Your task to perform on an android device: turn off priority inbox in the gmail app Image 0: 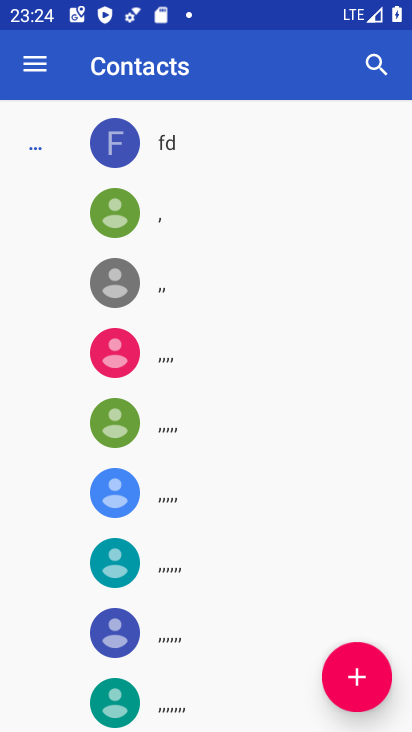
Step 0: press back button
Your task to perform on an android device: turn off priority inbox in the gmail app Image 1: 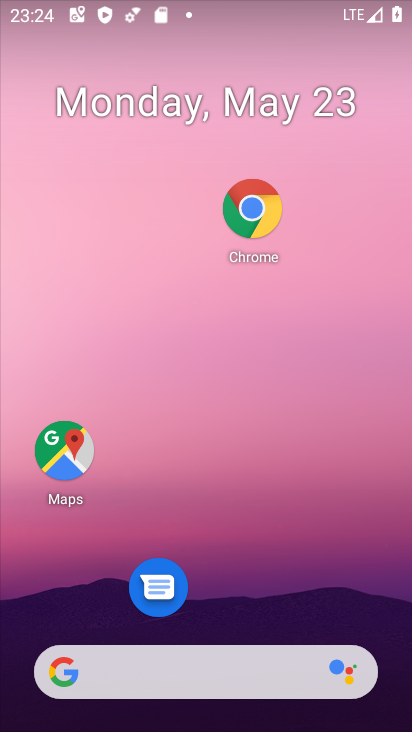
Step 1: drag from (272, 614) to (206, 232)
Your task to perform on an android device: turn off priority inbox in the gmail app Image 2: 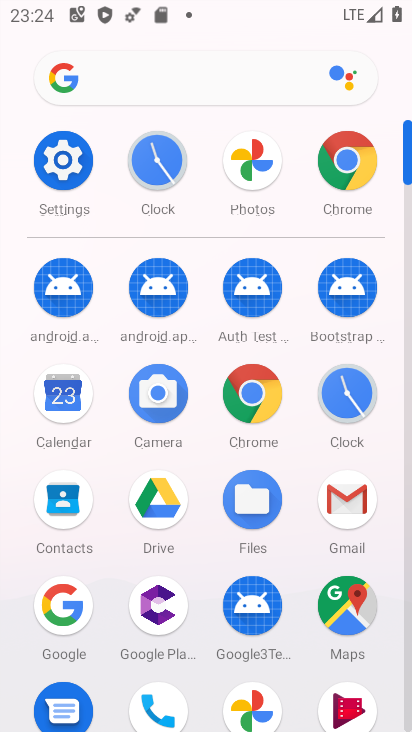
Step 2: click (341, 493)
Your task to perform on an android device: turn off priority inbox in the gmail app Image 3: 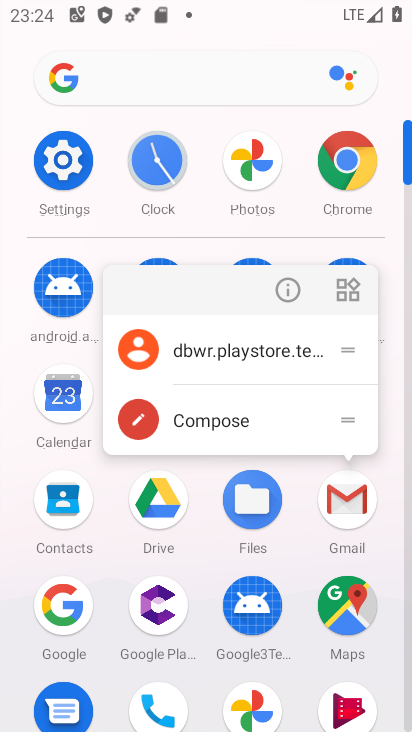
Step 3: click (341, 493)
Your task to perform on an android device: turn off priority inbox in the gmail app Image 4: 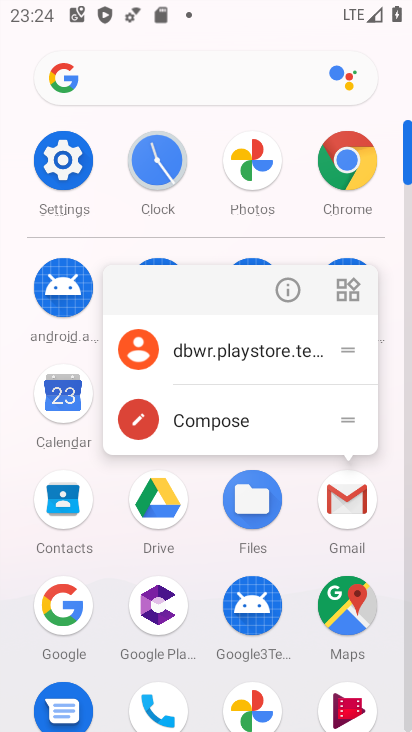
Step 4: click (342, 492)
Your task to perform on an android device: turn off priority inbox in the gmail app Image 5: 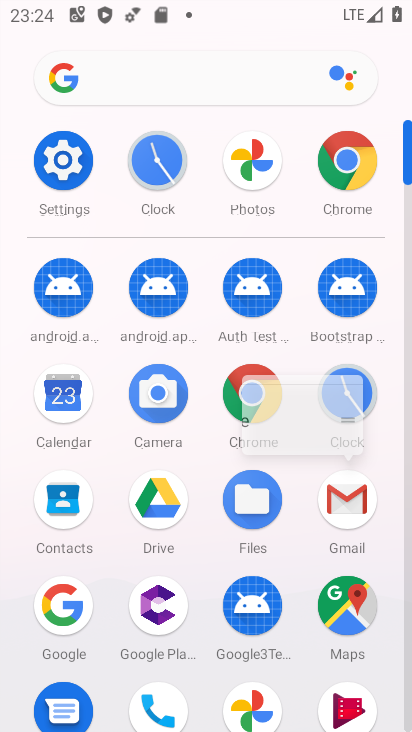
Step 5: click (345, 489)
Your task to perform on an android device: turn off priority inbox in the gmail app Image 6: 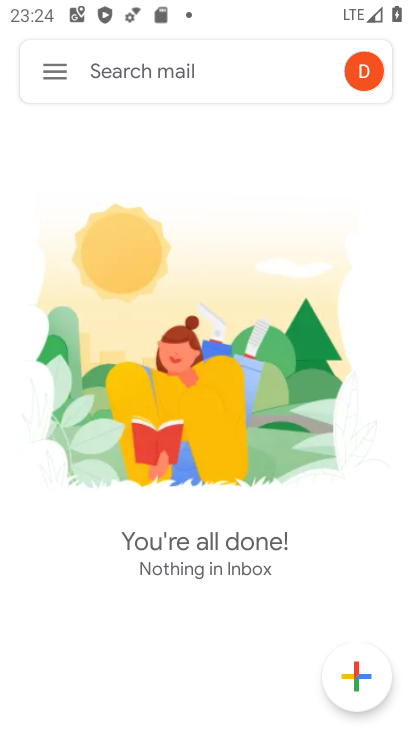
Step 6: click (49, 61)
Your task to perform on an android device: turn off priority inbox in the gmail app Image 7: 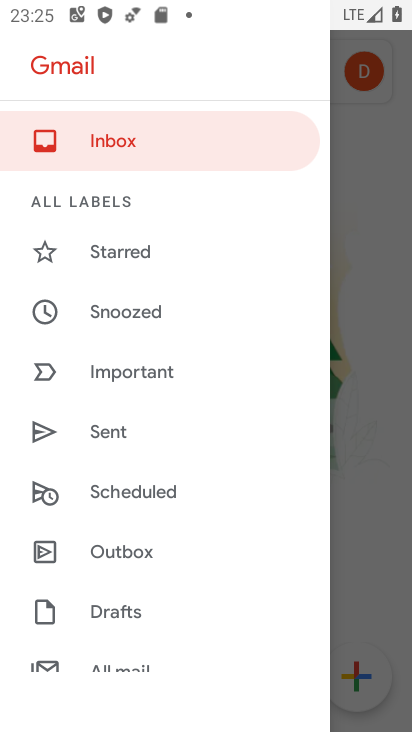
Step 7: drag from (148, 532) to (92, 139)
Your task to perform on an android device: turn off priority inbox in the gmail app Image 8: 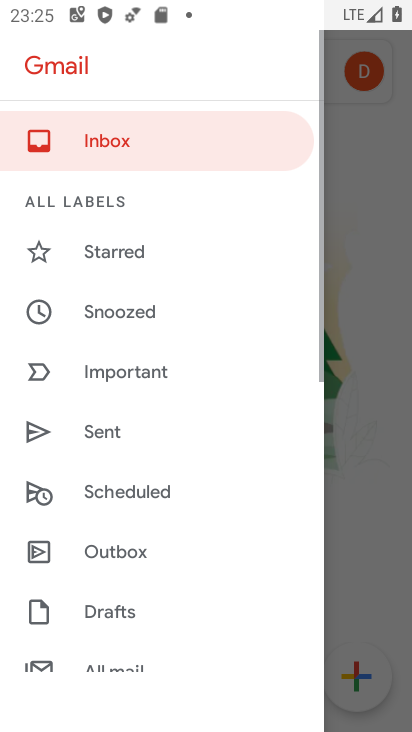
Step 8: drag from (116, 460) to (116, 141)
Your task to perform on an android device: turn off priority inbox in the gmail app Image 9: 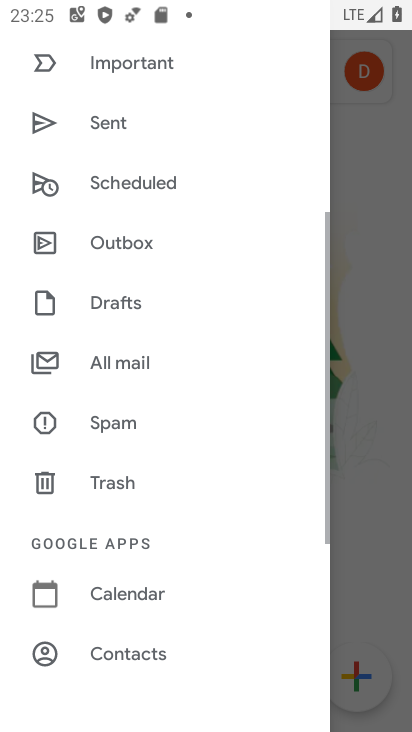
Step 9: drag from (135, 502) to (135, 94)
Your task to perform on an android device: turn off priority inbox in the gmail app Image 10: 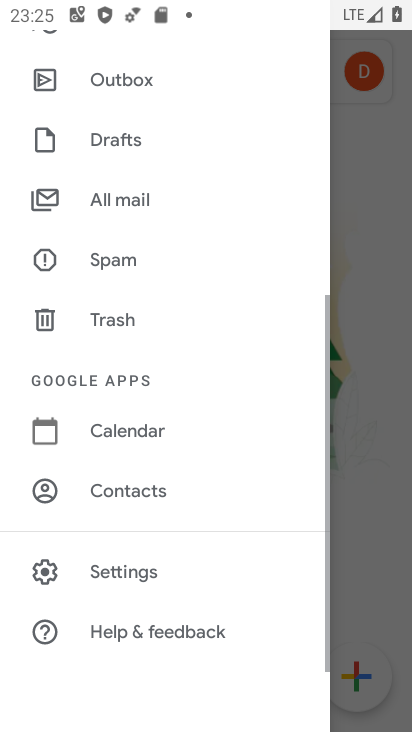
Step 10: click (112, 576)
Your task to perform on an android device: turn off priority inbox in the gmail app Image 11: 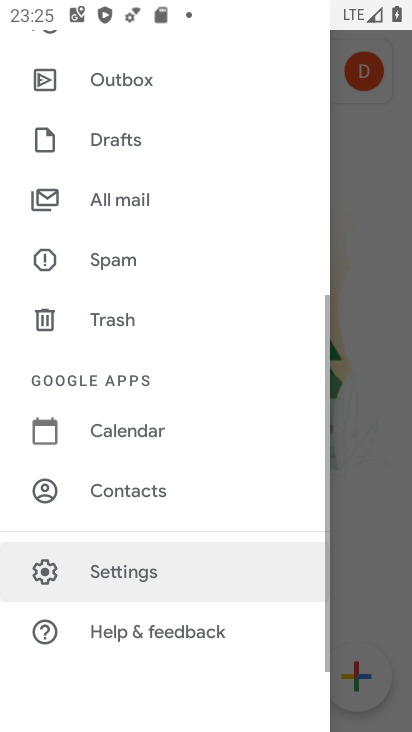
Step 11: click (115, 573)
Your task to perform on an android device: turn off priority inbox in the gmail app Image 12: 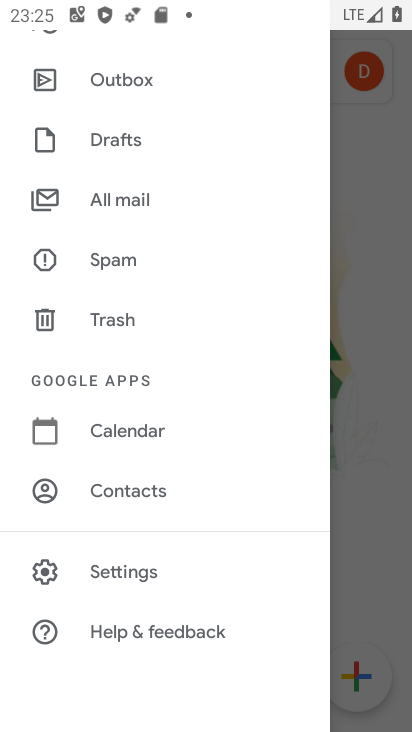
Step 12: click (124, 556)
Your task to perform on an android device: turn off priority inbox in the gmail app Image 13: 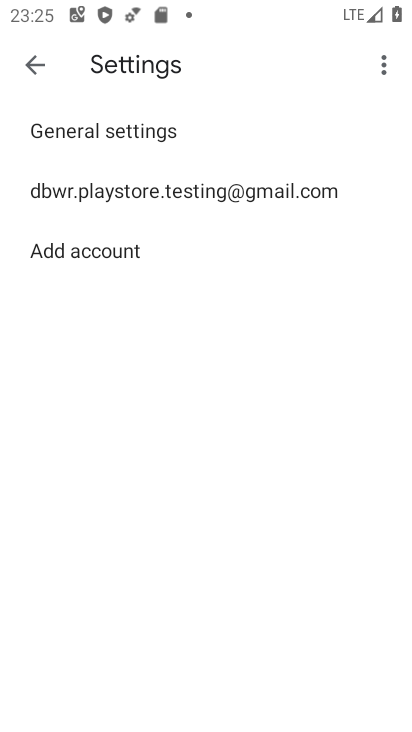
Step 13: click (104, 193)
Your task to perform on an android device: turn off priority inbox in the gmail app Image 14: 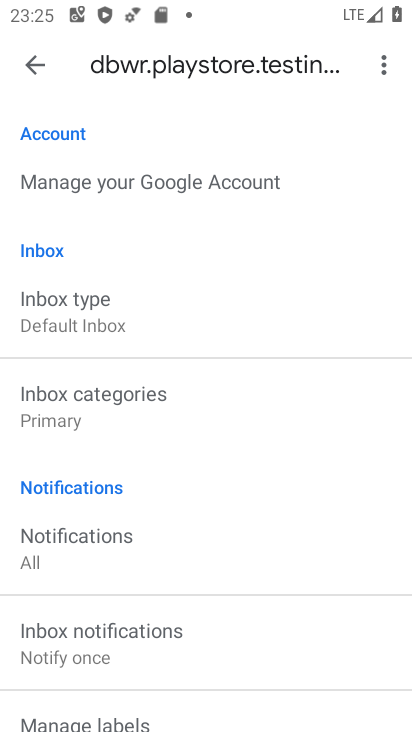
Step 14: click (69, 308)
Your task to perform on an android device: turn off priority inbox in the gmail app Image 15: 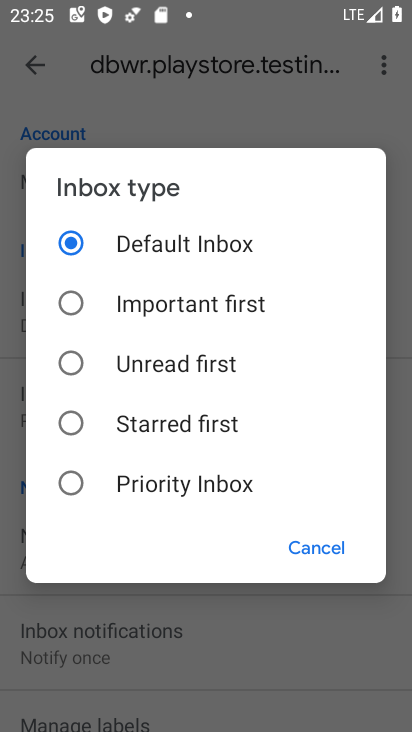
Step 15: click (64, 483)
Your task to perform on an android device: turn off priority inbox in the gmail app Image 16: 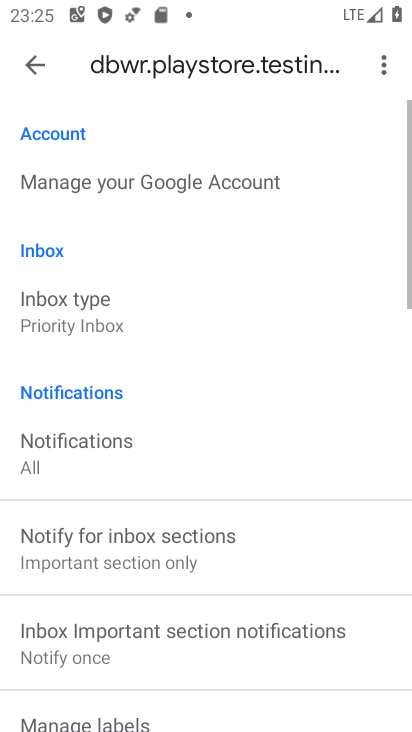
Step 16: click (51, 311)
Your task to perform on an android device: turn off priority inbox in the gmail app Image 17: 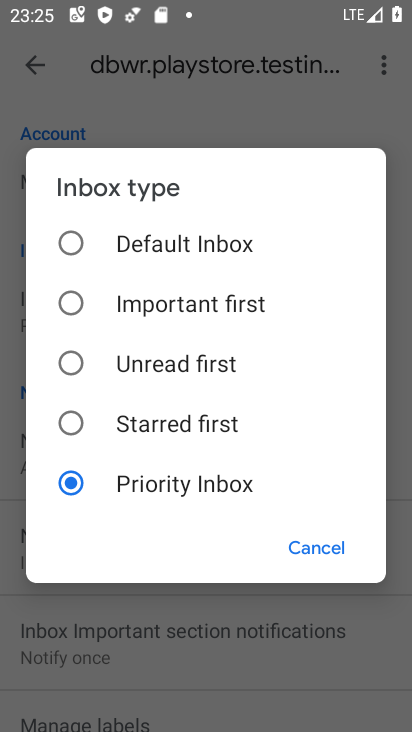
Step 17: click (64, 247)
Your task to perform on an android device: turn off priority inbox in the gmail app Image 18: 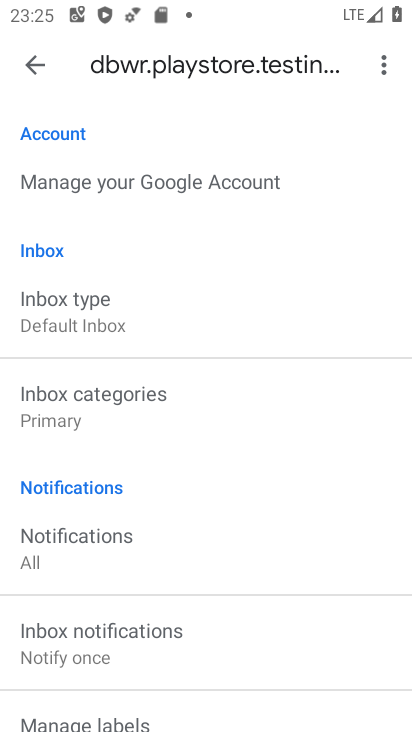
Step 18: task complete